Your task to perform on an android device: manage bookmarks in the chrome app Image 0: 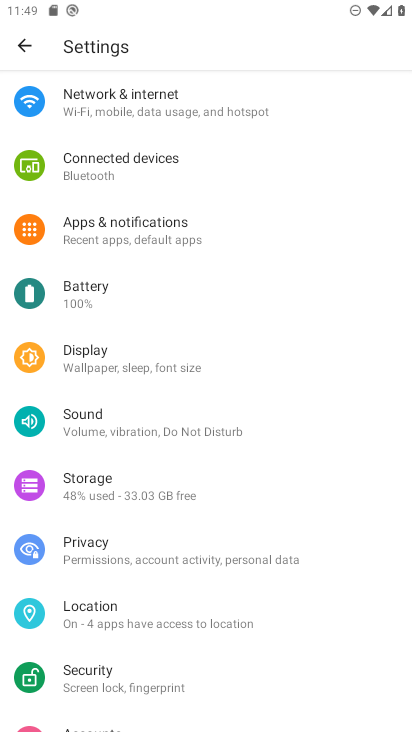
Step 0: press home button
Your task to perform on an android device: manage bookmarks in the chrome app Image 1: 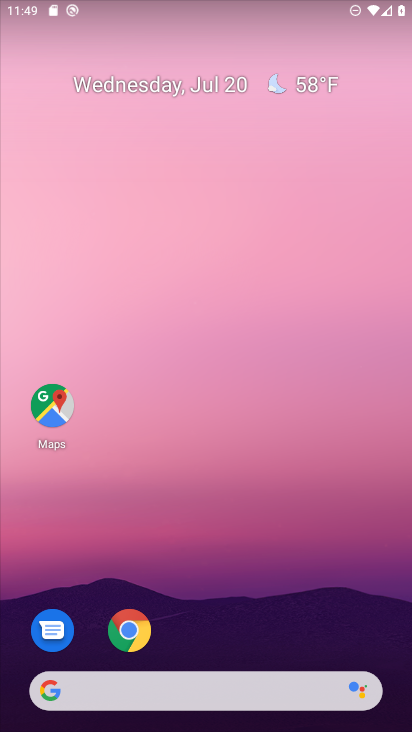
Step 1: click (129, 630)
Your task to perform on an android device: manage bookmarks in the chrome app Image 2: 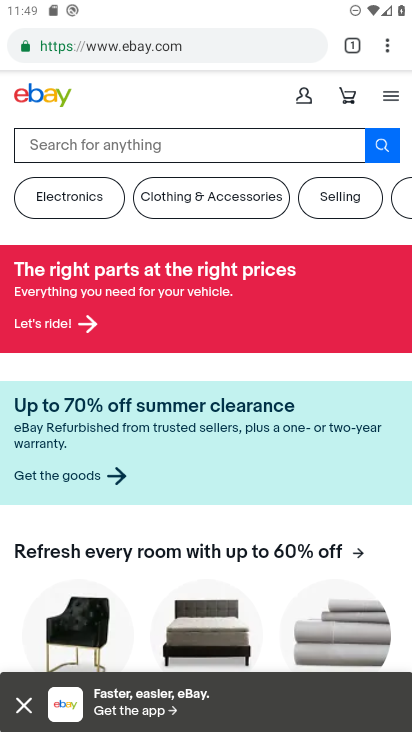
Step 2: click (394, 45)
Your task to perform on an android device: manage bookmarks in the chrome app Image 3: 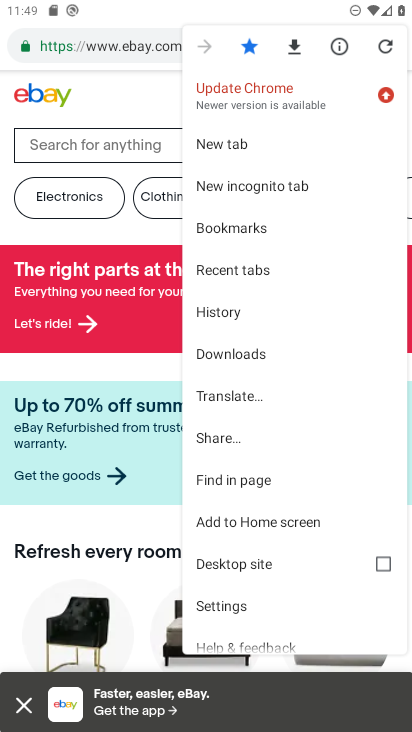
Step 3: click (236, 232)
Your task to perform on an android device: manage bookmarks in the chrome app Image 4: 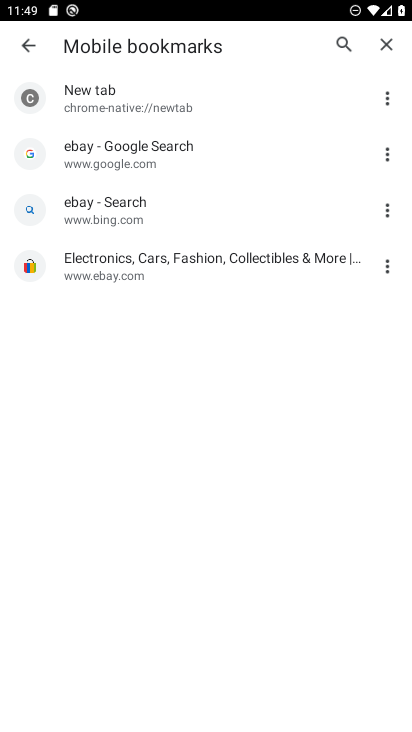
Step 4: click (386, 152)
Your task to perform on an android device: manage bookmarks in the chrome app Image 5: 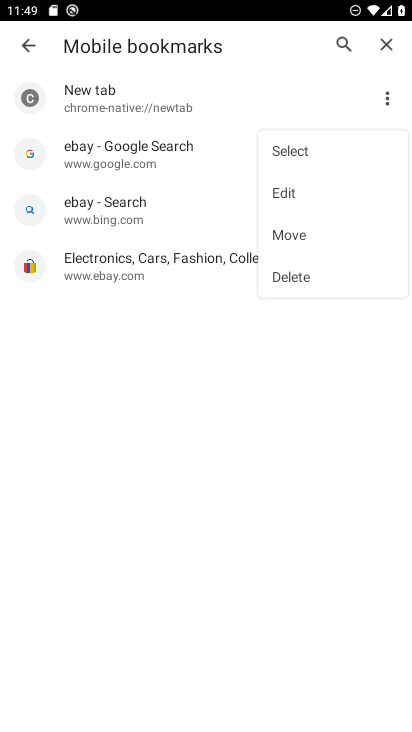
Step 5: click (295, 157)
Your task to perform on an android device: manage bookmarks in the chrome app Image 6: 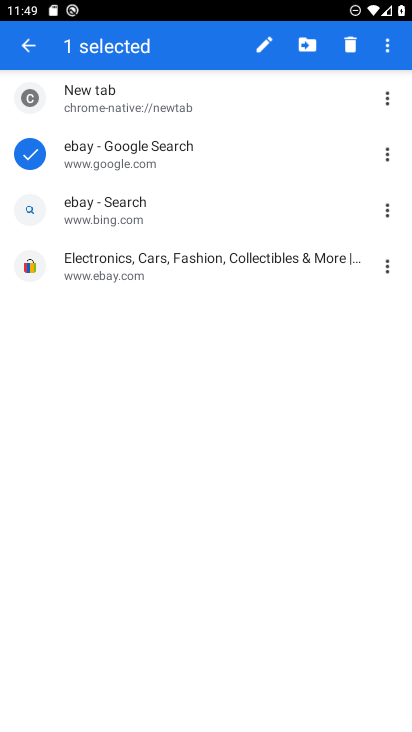
Step 6: click (128, 215)
Your task to perform on an android device: manage bookmarks in the chrome app Image 7: 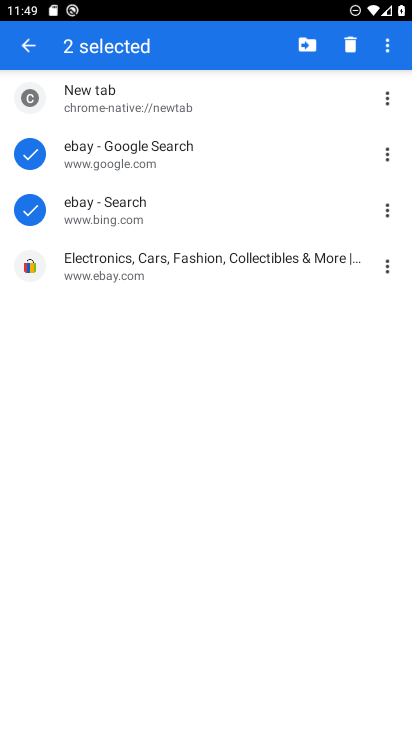
Step 7: click (76, 279)
Your task to perform on an android device: manage bookmarks in the chrome app Image 8: 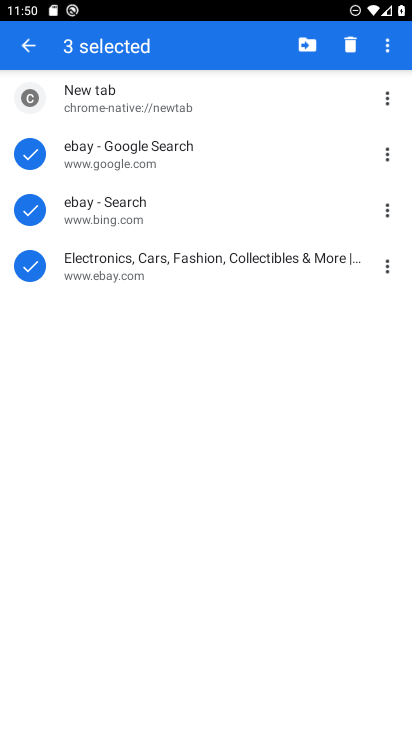
Step 8: click (123, 100)
Your task to perform on an android device: manage bookmarks in the chrome app Image 9: 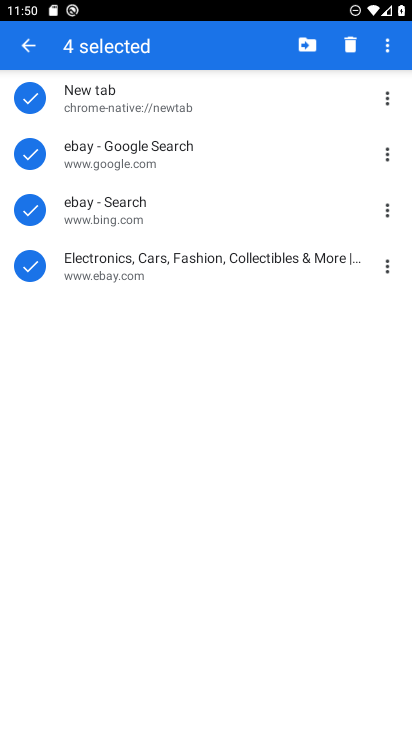
Step 9: click (306, 50)
Your task to perform on an android device: manage bookmarks in the chrome app Image 10: 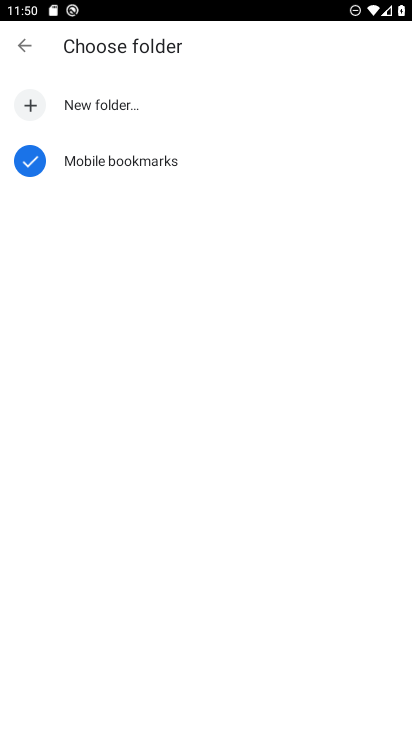
Step 10: click (102, 119)
Your task to perform on an android device: manage bookmarks in the chrome app Image 11: 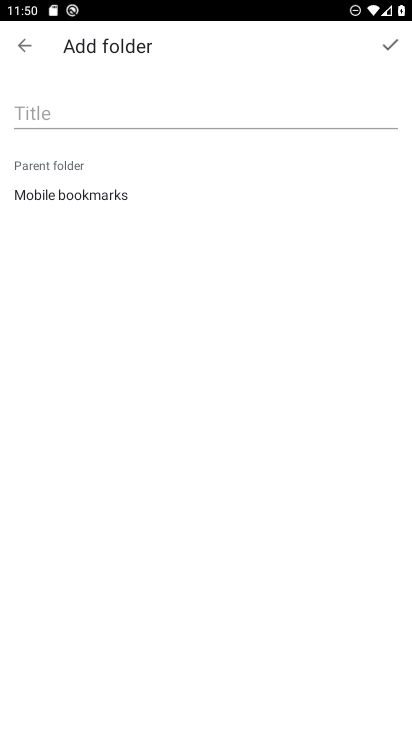
Step 11: click (101, 95)
Your task to perform on an android device: manage bookmarks in the chrome app Image 12: 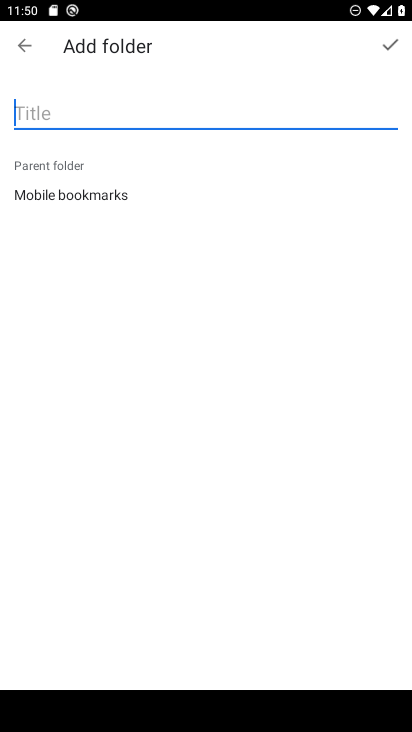
Step 12: type "flemingo"
Your task to perform on an android device: manage bookmarks in the chrome app Image 13: 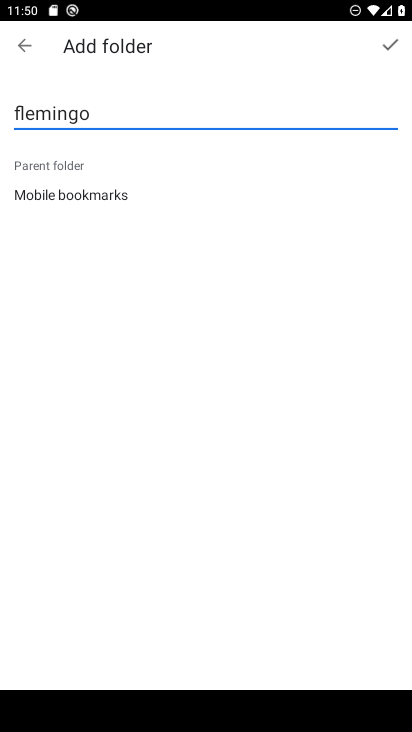
Step 13: click (389, 37)
Your task to perform on an android device: manage bookmarks in the chrome app Image 14: 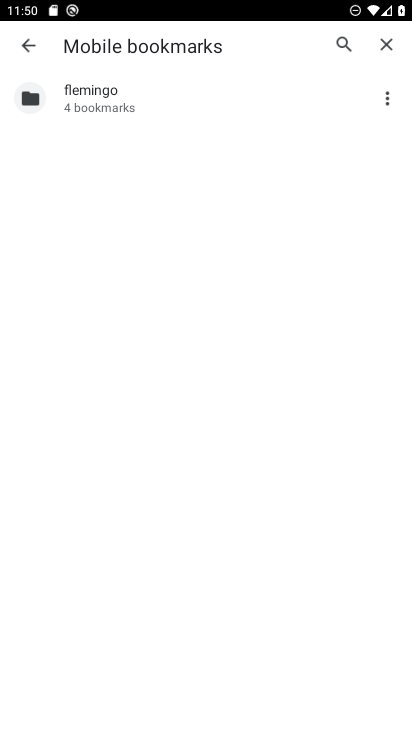
Step 14: task complete